Your task to perform on an android device: Search for logitech g910 on costco, select the first entry, add it to the cart, then select checkout. Image 0: 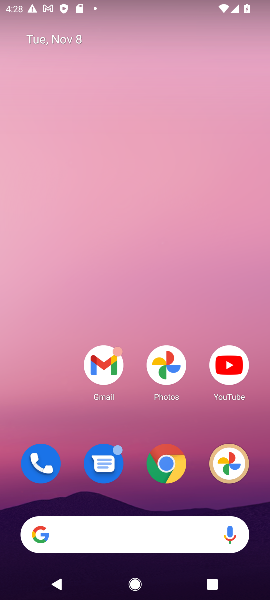
Step 0: click (179, 466)
Your task to perform on an android device: Search for logitech g910 on costco, select the first entry, add it to the cart, then select checkout. Image 1: 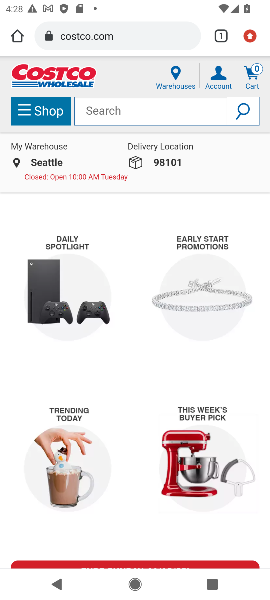
Step 1: click (103, 112)
Your task to perform on an android device: Search for logitech g910 on costco, select the first entry, add it to the cart, then select checkout. Image 2: 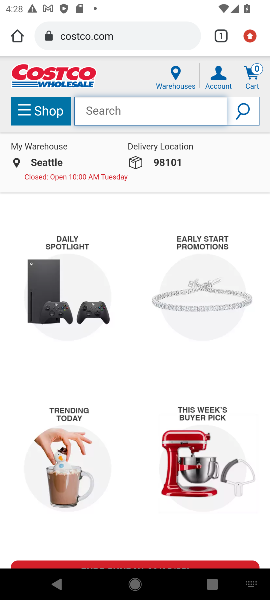
Step 2: type "logitech g910 on costco"
Your task to perform on an android device: Search for logitech g910 on costco, select the first entry, add it to the cart, then select checkout. Image 3: 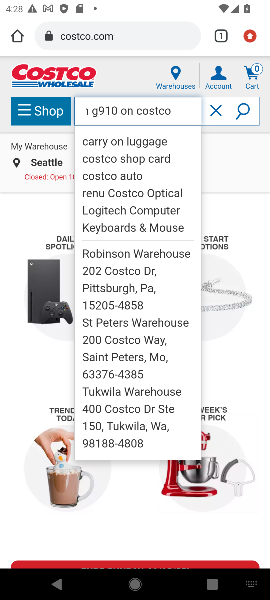
Step 3: click (244, 117)
Your task to perform on an android device: Search for logitech g910 on costco, select the first entry, add it to the cart, then select checkout. Image 4: 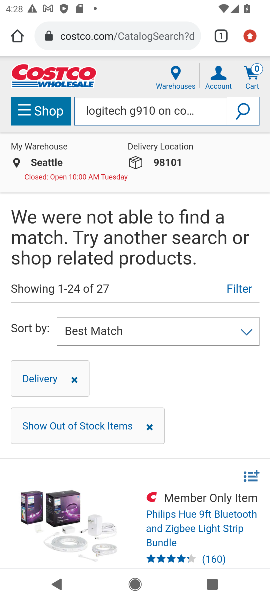
Step 4: click (181, 116)
Your task to perform on an android device: Search for logitech g910 on costco, select the first entry, add it to the cart, then select checkout. Image 5: 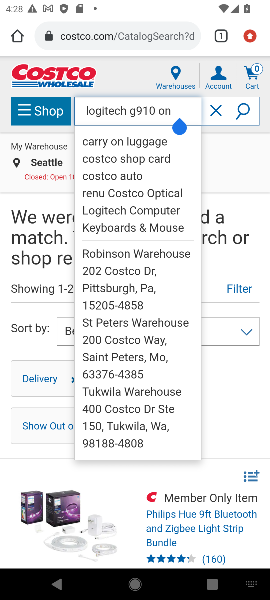
Step 5: click (216, 109)
Your task to perform on an android device: Search for logitech g910 on costco, select the first entry, add it to the cart, then select checkout. Image 6: 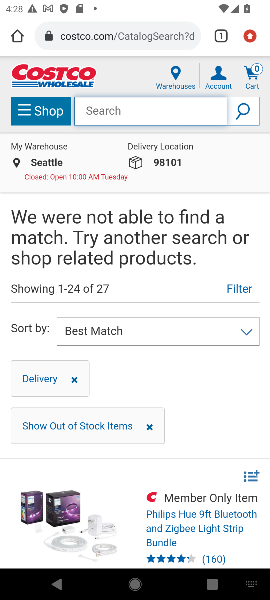
Step 6: type "logitech g910 "
Your task to perform on an android device: Search for logitech g910 on costco, select the first entry, add it to the cart, then select checkout. Image 7: 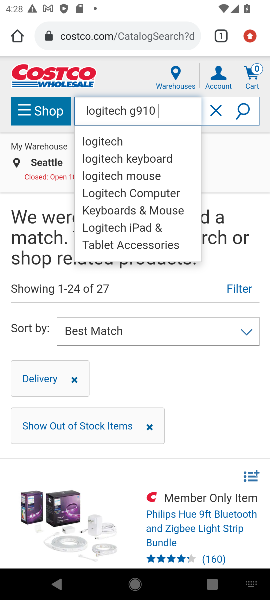
Step 7: click (244, 111)
Your task to perform on an android device: Search for logitech g910 on costco, select the first entry, add it to the cart, then select checkout. Image 8: 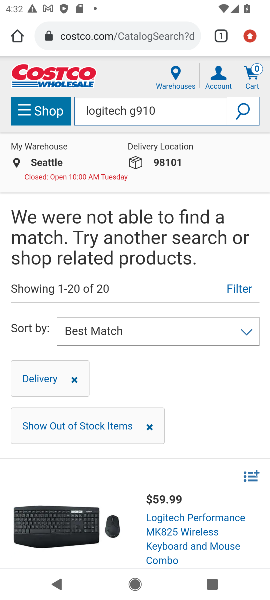
Step 8: task complete